Your task to perform on an android device: toggle show notifications on the lock screen Image 0: 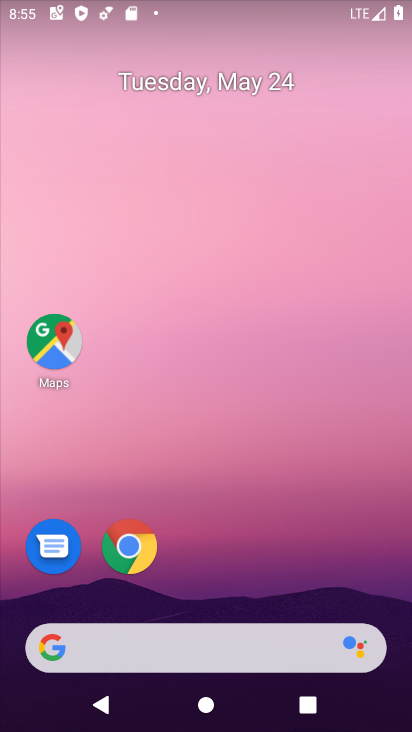
Step 0: drag from (277, 564) to (267, 54)
Your task to perform on an android device: toggle show notifications on the lock screen Image 1: 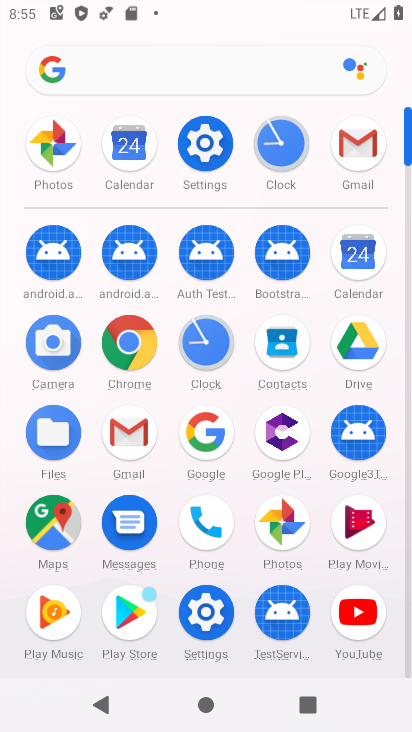
Step 1: click (213, 153)
Your task to perform on an android device: toggle show notifications on the lock screen Image 2: 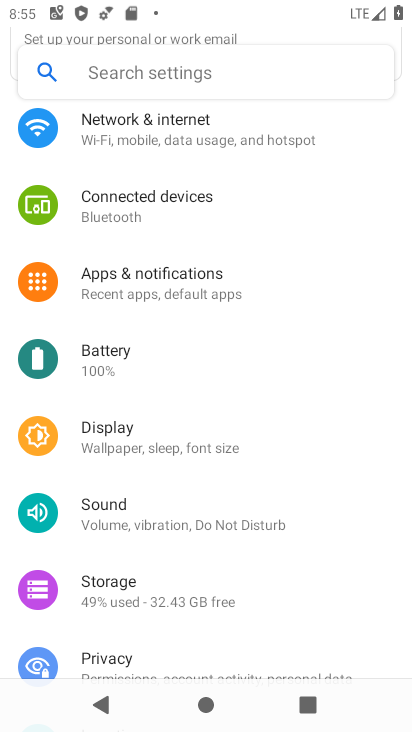
Step 2: click (177, 268)
Your task to perform on an android device: toggle show notifications on the lock screen Image 3: 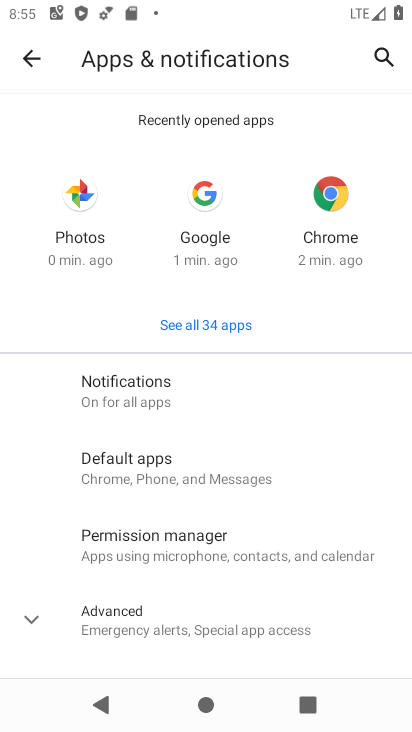
Step 3: click (167, 394)
Your task to perform on an android device: toggle show notifications on the lock screen Image 4: 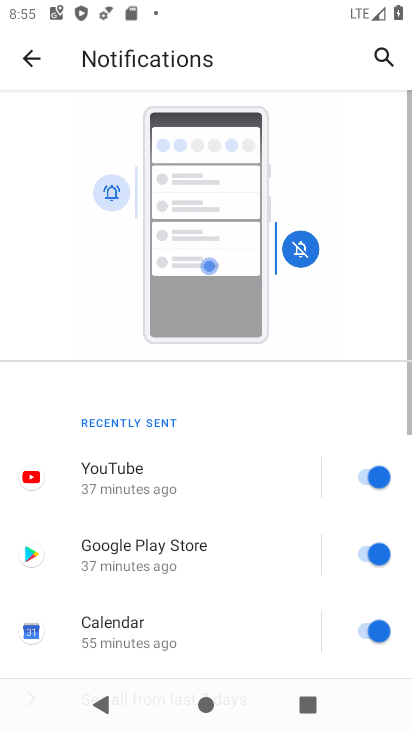
Step 4: drag from (219, 522) to (280, 0)
Your task to perform on an android device: toggle show notifications on the lock screen Image 5: 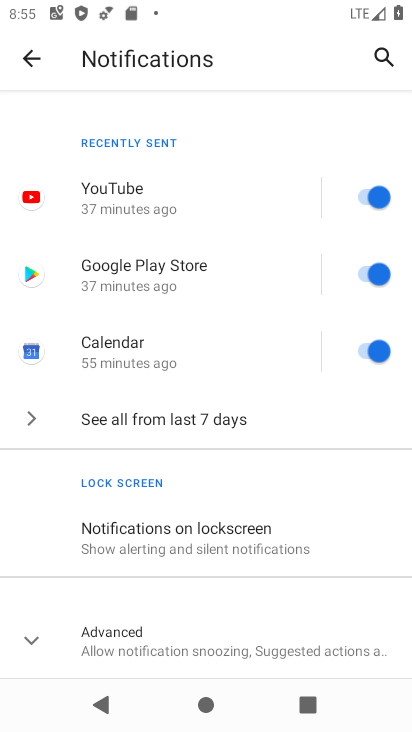
Step 5: click (234, 529)
Your task to perform on an android device: toggle show notifications on the lock screen Image 6: 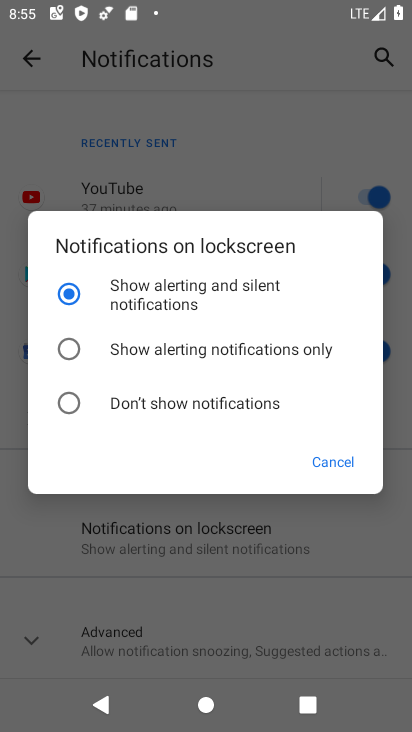
Step 6: click (65, 399)
Your task to perform on an android device: toggle show notifications on the lock screen Image 7: 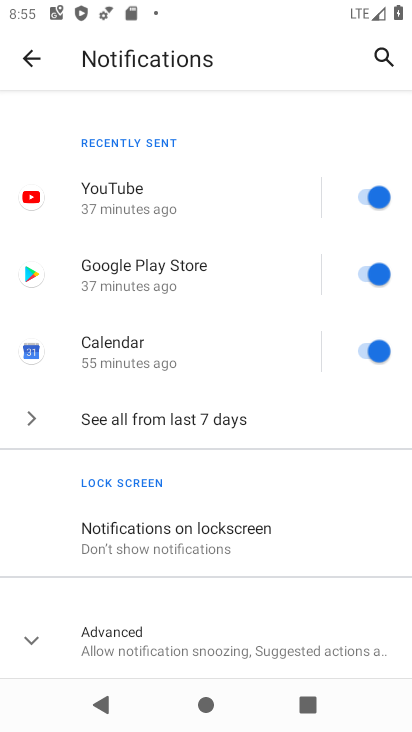
Step 7: task complete